Your task to perform on an android device: remove spam from my inbox in the gmail app Image 0: 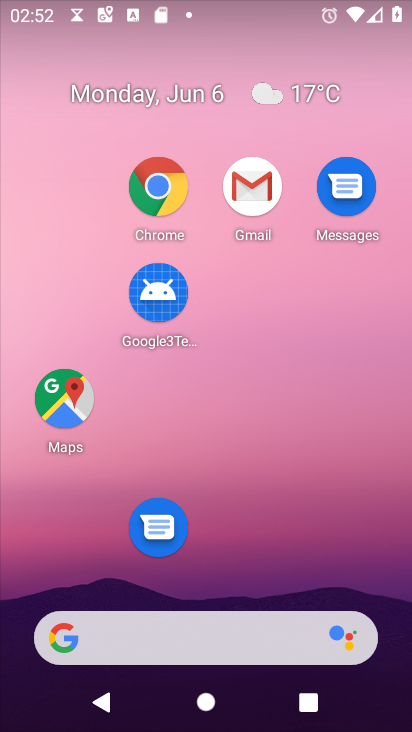
Step 0: click (252, 196)
Your task to perform on an android device: remove spam from my inbox in the gmail app Image 1: 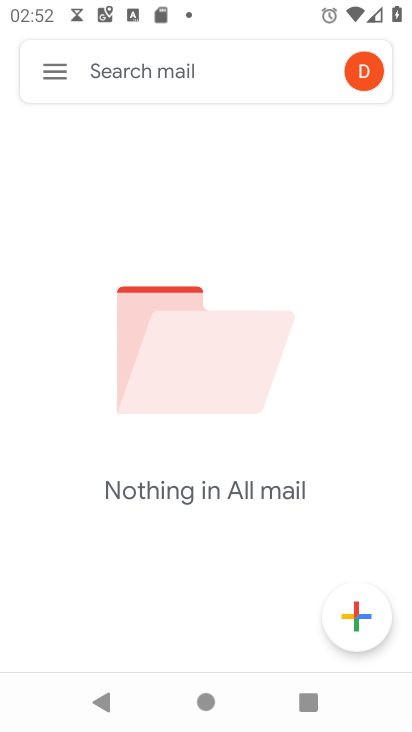
Step 1: click (252, 196)
Your task to perform on an android device: remove spam from my inbox in the gmail app Image 2: 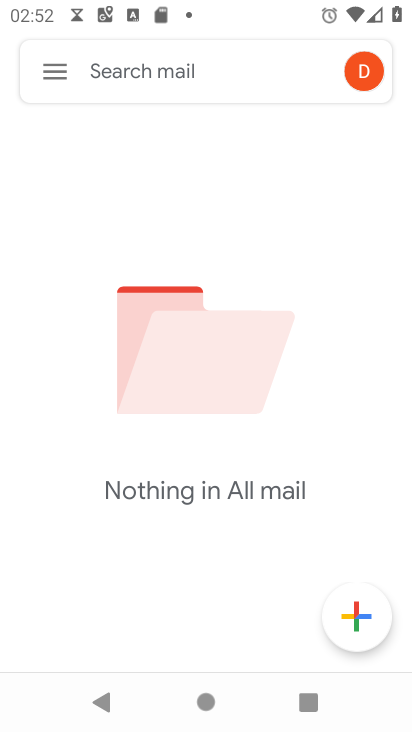
Step 2: click (36, 68)
Your task to perform on an android device: remove spam from my inbox in the gmail app Image 3: 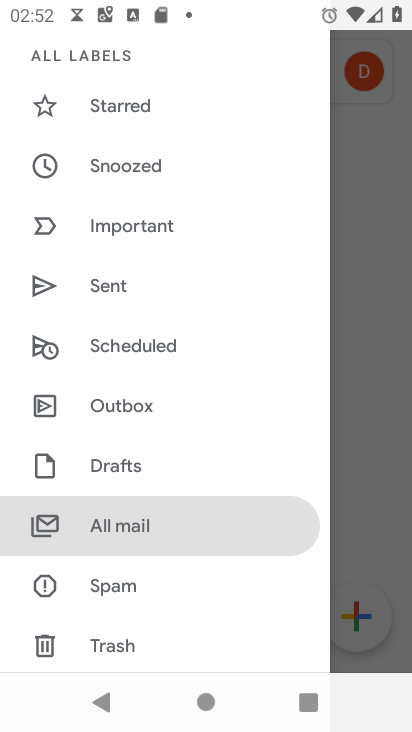
Step 3: click (118, 457)
Your task to perform on an android device: remove spam from my inbox in the gmail app Image 4: 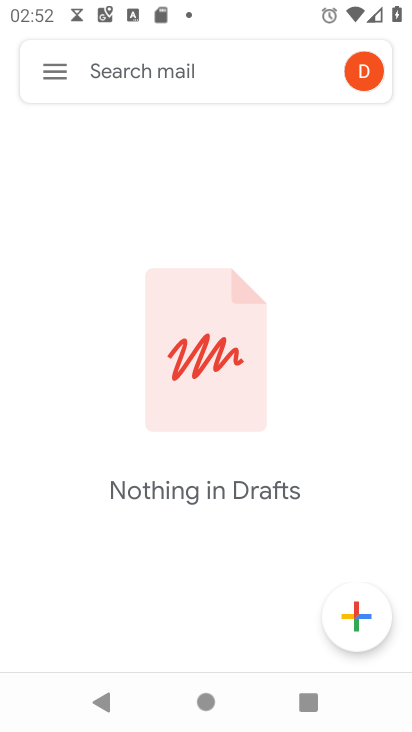
Step 4: click (56, 70)
Your task to perform on an android device: remove spam from my inbox in the gmail app Image 5: 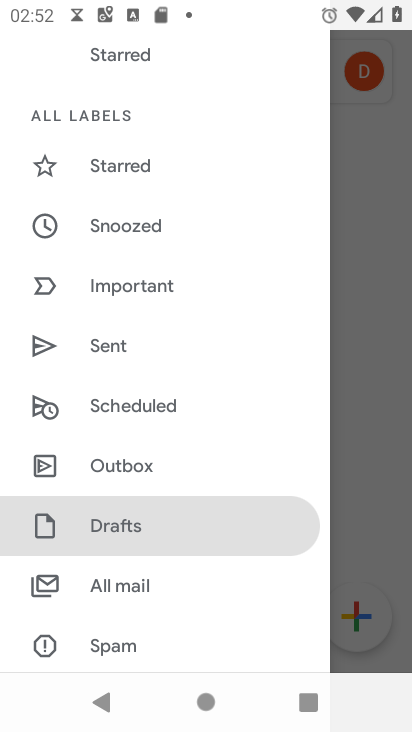
Step 5: click (114, 635)
Your task to perform on an android device: remove spam from my inbox in the gmail app Image 6: 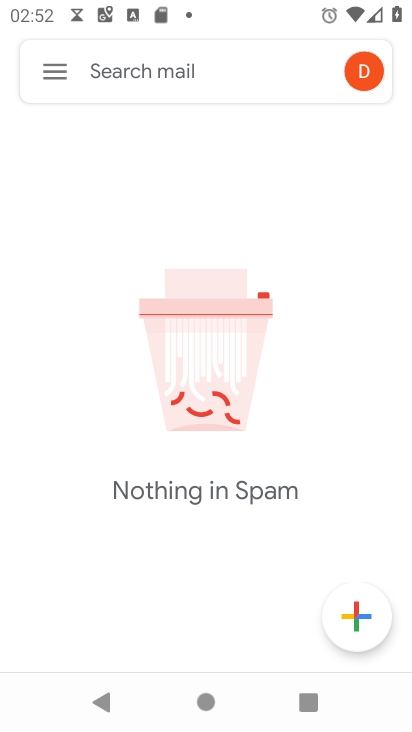
Step 6: task complete